Your task to perform on an android device: search for starred emails in the gmail app Image 0: 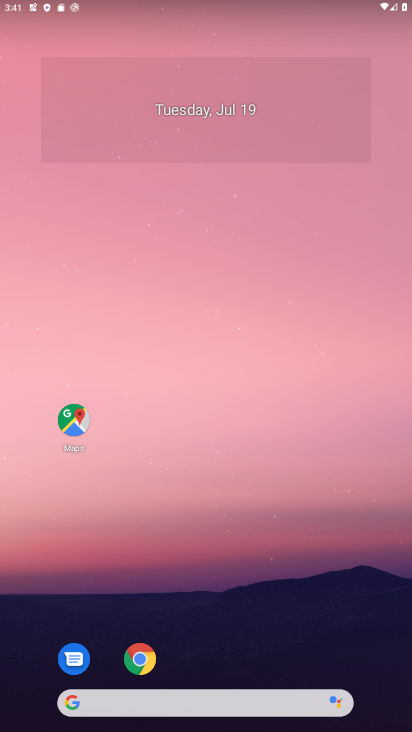
Step 0: drag from (213, 649) to (128, 135)
Your task to perform on an android device: search for starred emails in the gmail app Image 1: 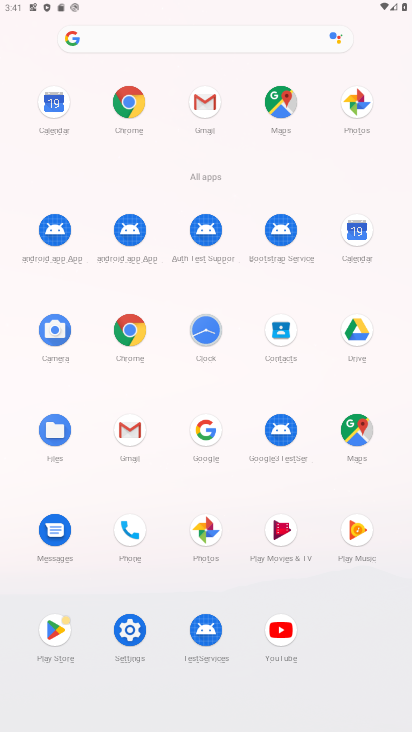
Step 1: click (218, 103)
Your task to perform on an android device: search for starred emails in the gmail app Image 2: 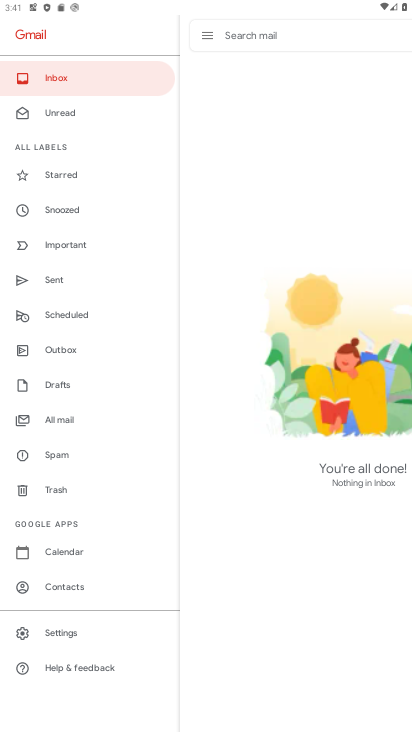
Step 2: click (73, 173)
Your task to perform on an android device: search for starred emails in the gmail app Image 3: 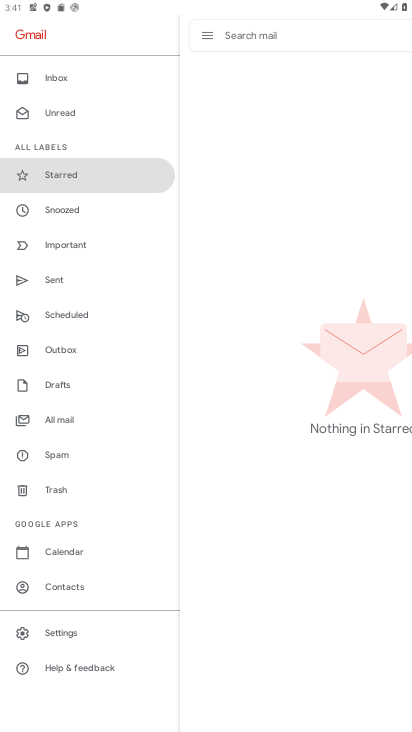
Step 3: task complete